Your task to perform on an android device: Go to Android settings Image 0: 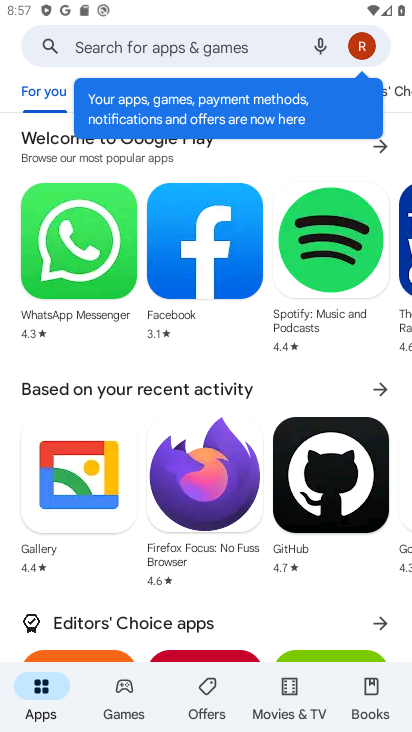
Step 0: press home button
Your task to perform on an android device: Go to Android settings Image 1: 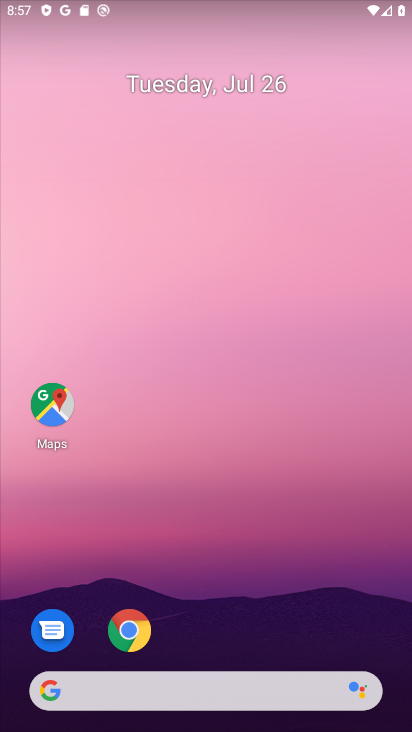
Step 1: drag from (256, 648) to (163, 122)
Your task to perform on an android device: Go to Android settings Image 2: 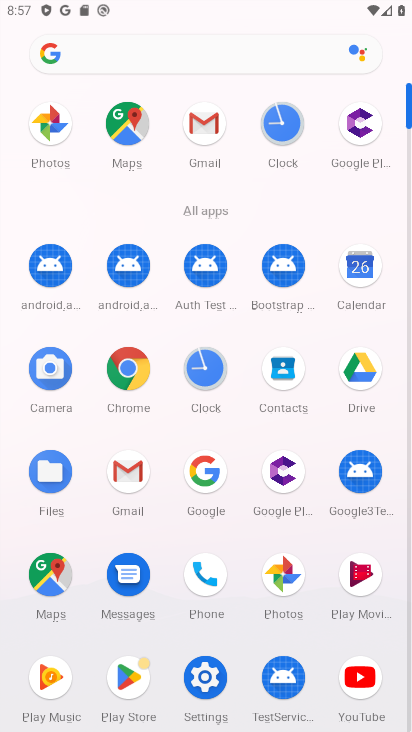
Step 2: click (203, 680)
Your task to perform on an android device: Go to Android settings Image 3: 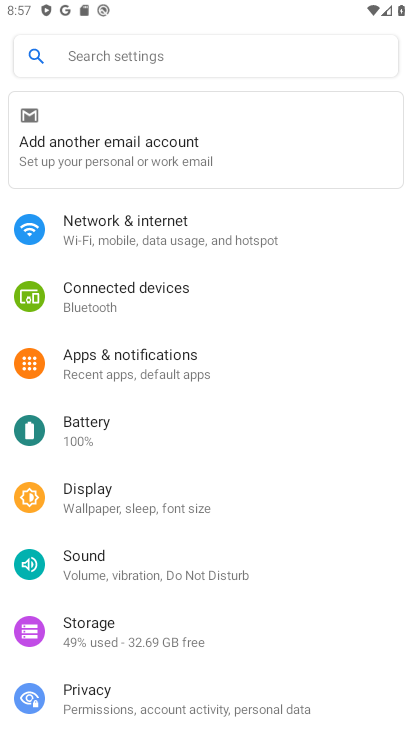
Step 3: task complete